Your task to perform on an android device: stop showing notifications on the lock screen Image 0: 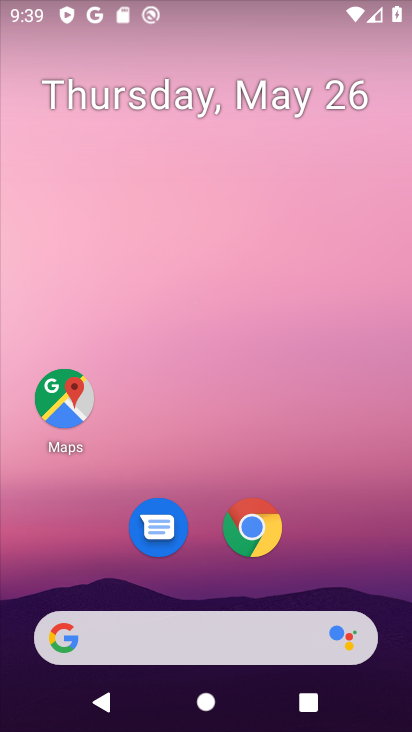
Step 0: drag from (364, 608) to (308, 12)
Your task to perform on an android device: stop showing notifications on the lock screen Image 1: 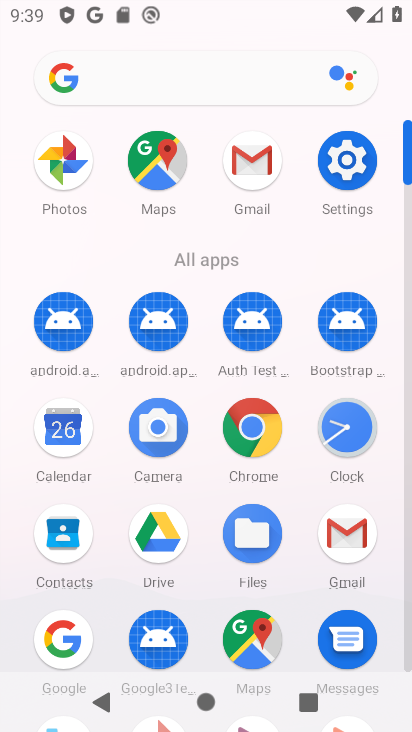
Step 1: click (354, 171)
Your task to perform on an android device: stop showing notifications on the lock screen Image 2: 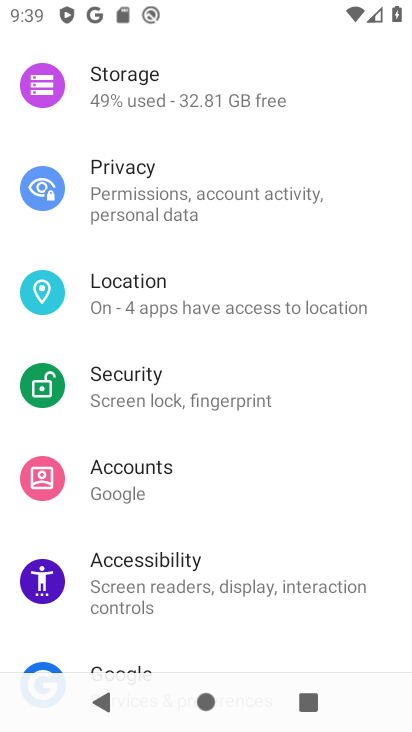
Step 2: drag from (263, 150) to (224, 730)
Your task to perform on an android device: stop showing notifications on the lock screen Image 3: 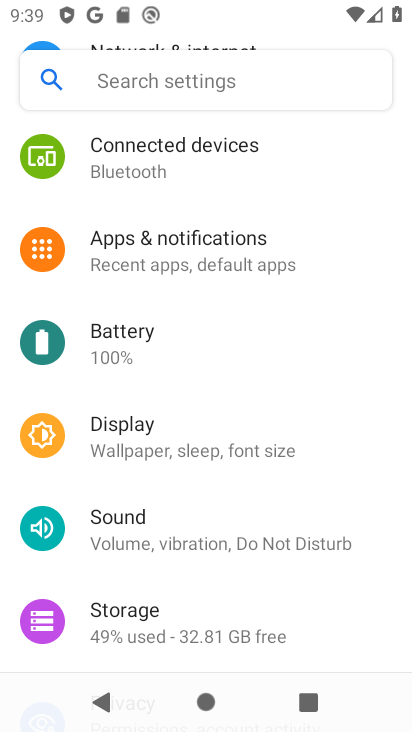
Step 3: click (174, 269)
Your task to perform on an android device: stop showing notifications on the lock screen Image 4: 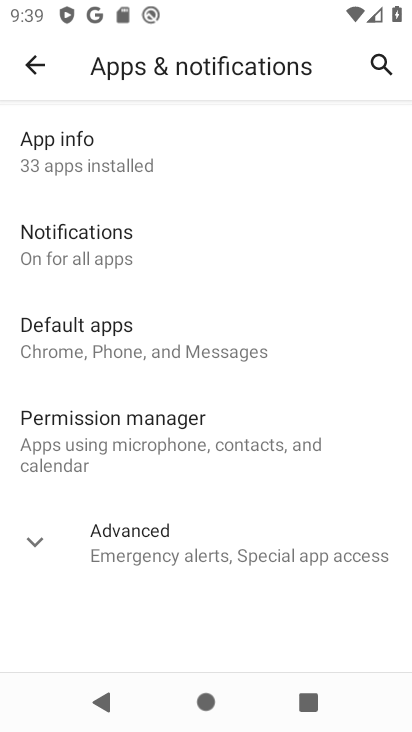
Step 4: drag from (136, 156) to (121, 432)
Your task to perform on an android device: stop showing notifications on the lock screen Image 5: 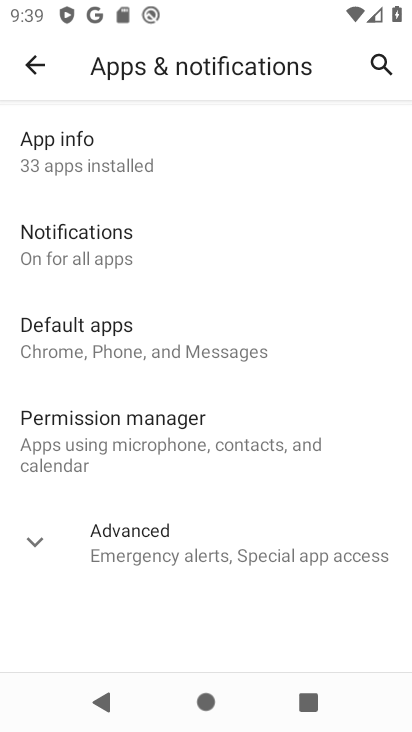
Step 5: click (124, 237)
Your task to perform on an android device: stop showing notifications on the lock screen Image 6: 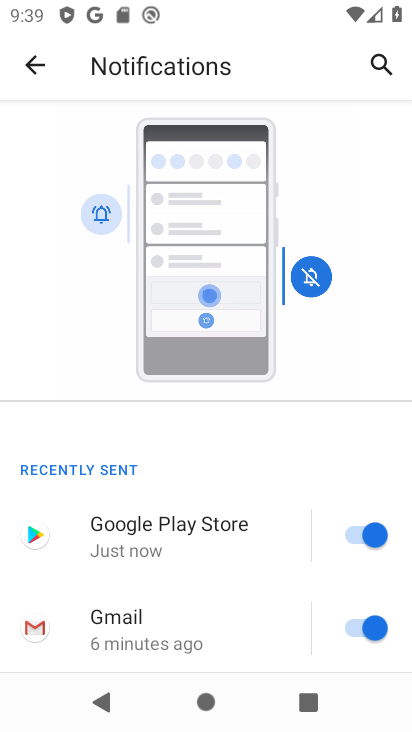
Step 6: drag from (179, 541) to (223, 6)
Your task to perform on an android device: stop showing notifications on the lock screen Image 7: 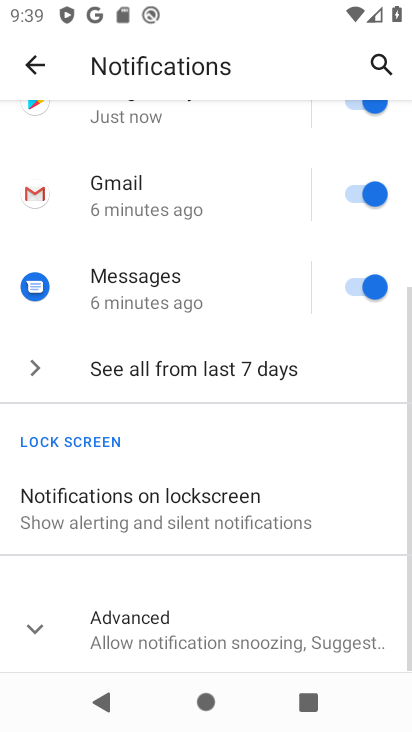
Step 7: click (216, 496)
Your task to perform on an android device: stop showing notifications on the lock screen Image 8: 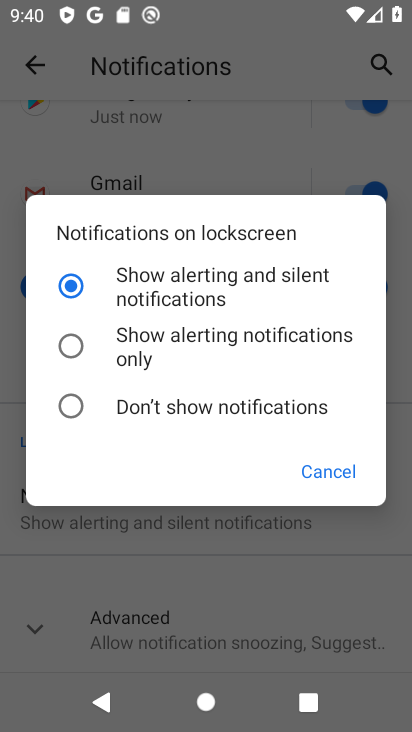
Step 8: click (190, 403)
Your task to perform on an android device: stop showing notifications on the lock screen Image 9: 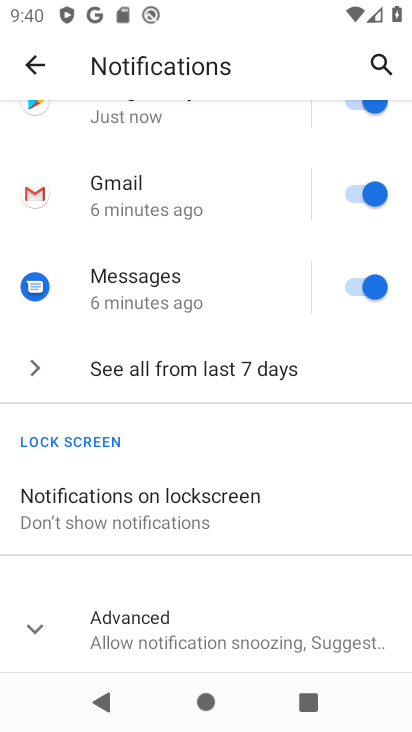
Step 9: task complete